Your task to perform on an android device: Go to Maps Image 0: 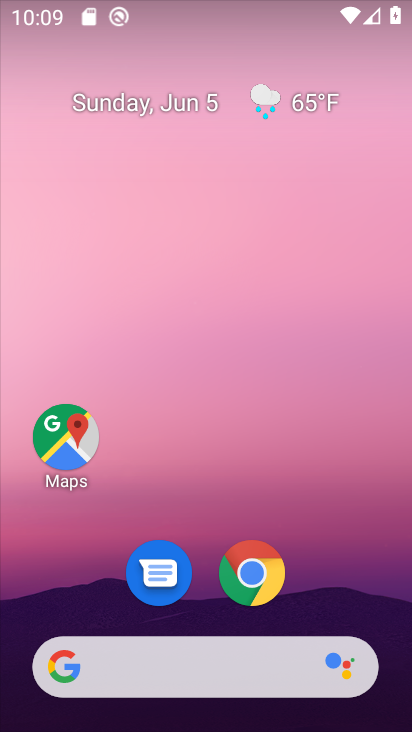
Step 0: click (88, 421)
Your task to perform on an android device: Go to Maps Image 1: 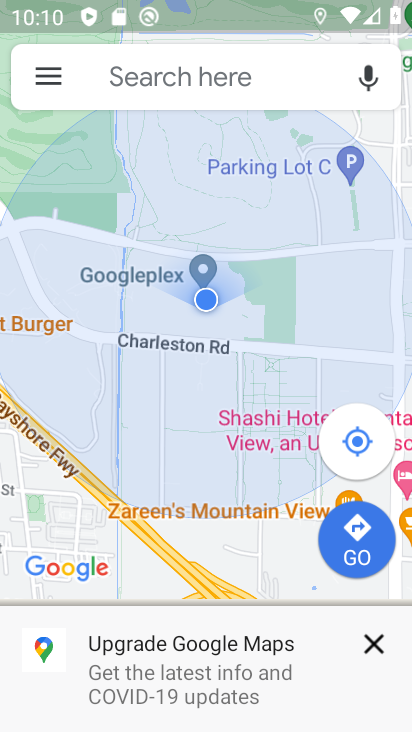
Step 1: task complete